Your task to perform on an android device: Open CNN.com Image 0: 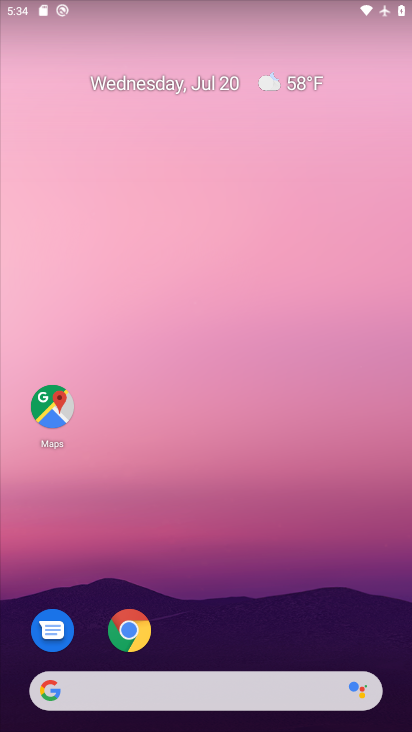
Step 0: press home button
Your task to perform on an android device: Open CNN.com Image 1: 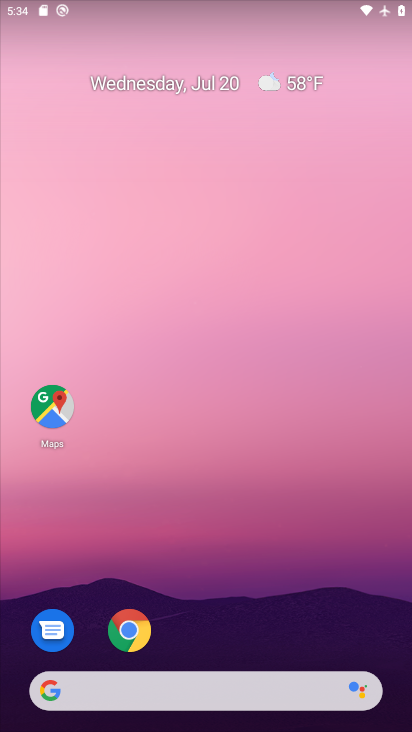
Step 1: click (45, 691)
Your task to perform on an android device: Open CNN.com Image 2: 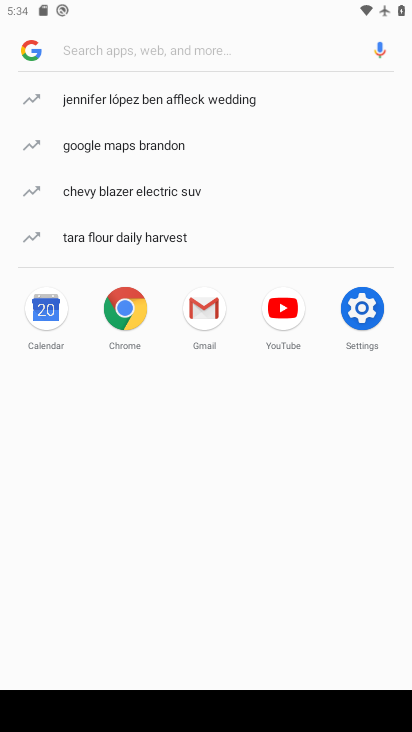
Step 2: type "CNN.com"
Your task to perform on an android device: Open CNN.com Image 3: 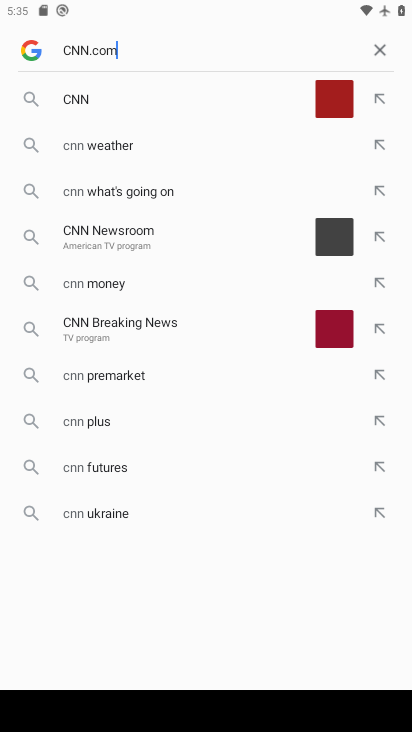
Step 3: press enter
Your task to perform on an android device: Open CNN.com Image 4: 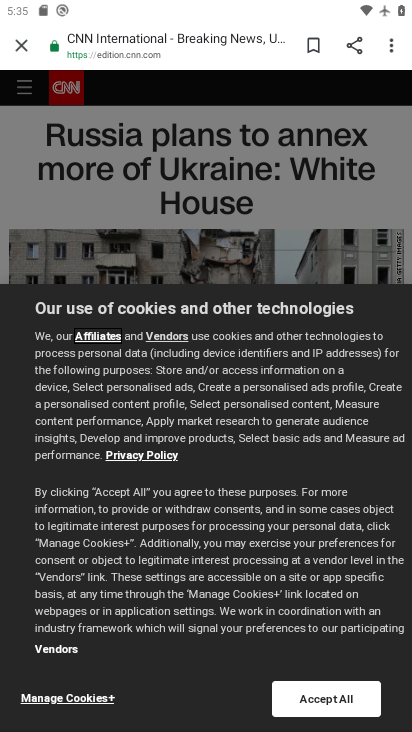
Step 4: click (307, 705)
Your task to perform on an android device: Open CNN.com Image 5: 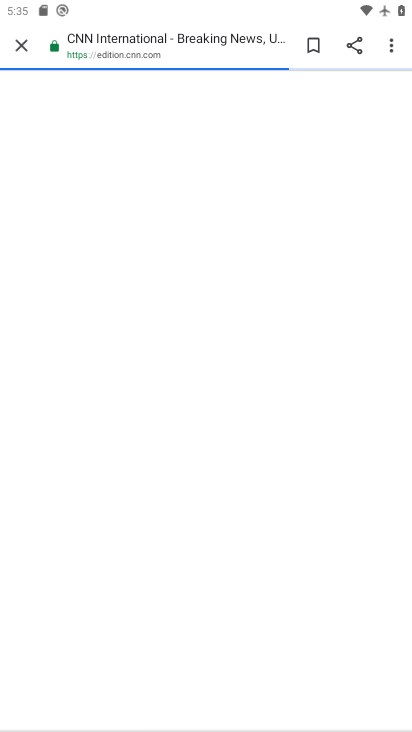
Step 5: task complete